Your task to perform on an android device: Open Yahoo.com Image 0: 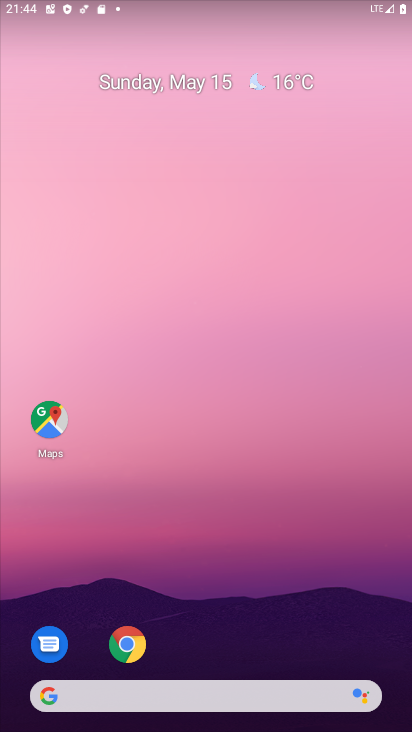
Step 0: click (128, 645)
Your task to perform on an android device: Open Yahoo.com Image 1: 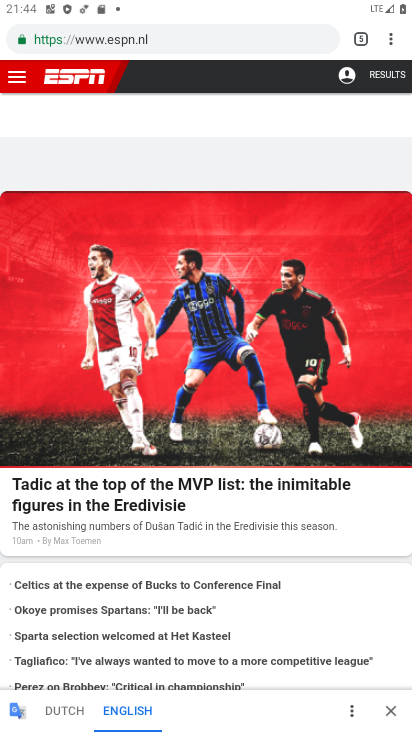
Step 1: click (351, 34)
Your task to perform on an android device: Open Yahoo.com Image 2: 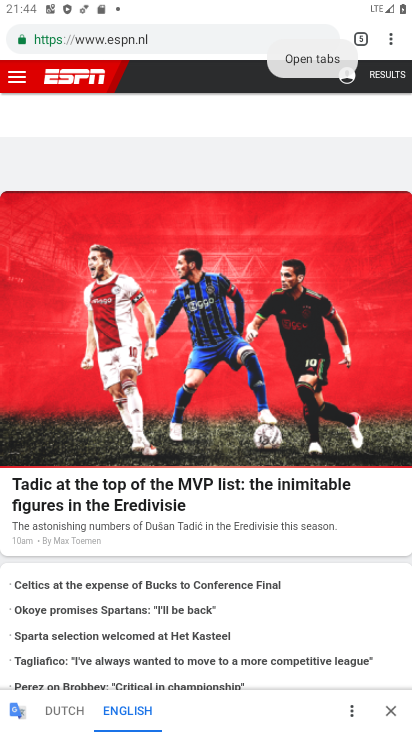
Step 2: click (360, 37)
Your task to perform on an android device: Open Yahoo.com Image 3: 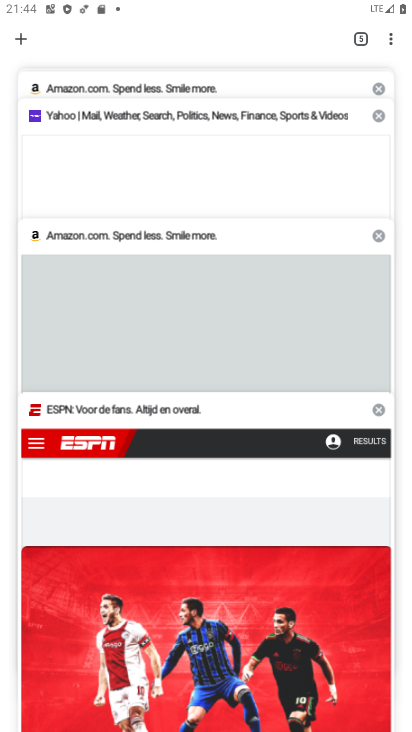
Step 3: click (87, 150)
Your task to perform on an android device: Open Yahoo.com Image 4: 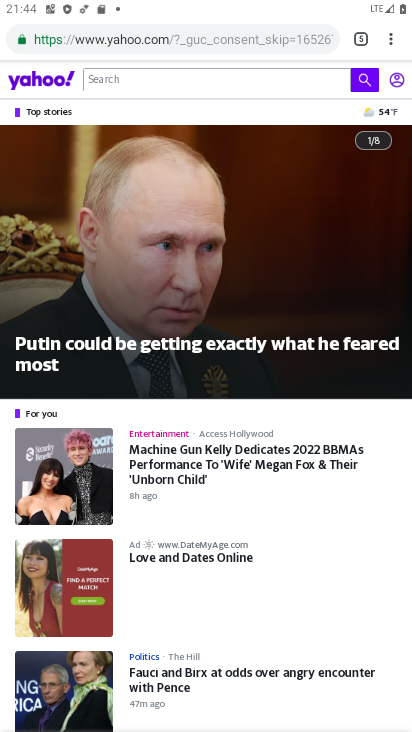
Step 4: task complete